Your task to perform on an android device: toggle pop-ups in chrome Image 0: 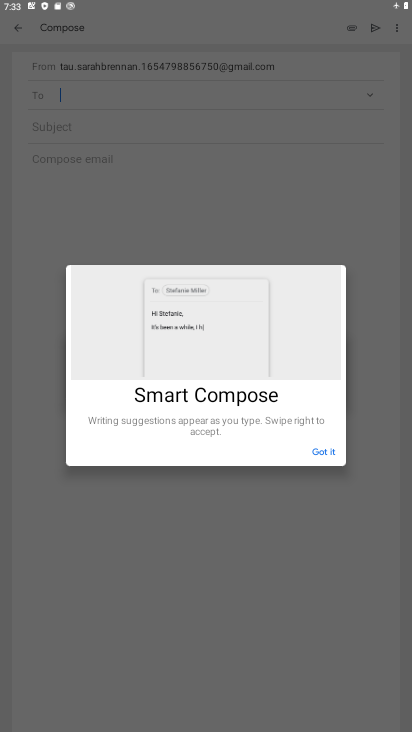
Step 0: press home button
Your task to perform on an android device: toggle pop-ups in chrome Image 1: 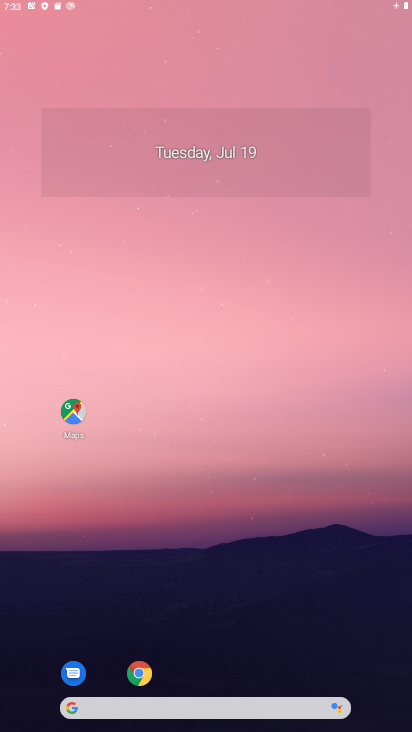
Step 1: drag from (403, 699) to (238, 15)
Your task to perform on an android device: toggle pop-ups in chrome Image 2: 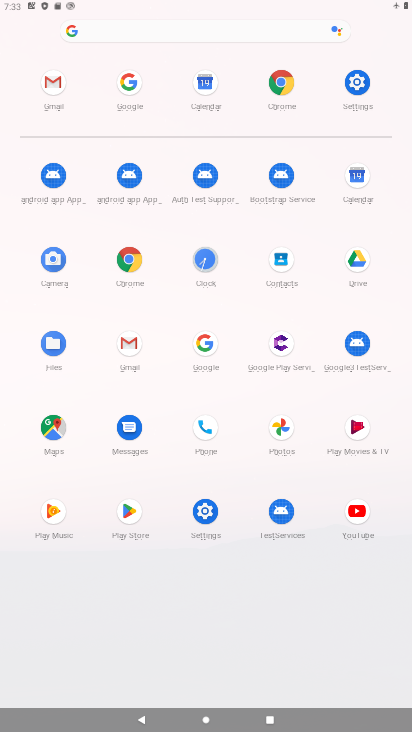
Step 2: click (272, 76)
Your task to perform on an android device: toggle pop-ups in chrome Image 3: 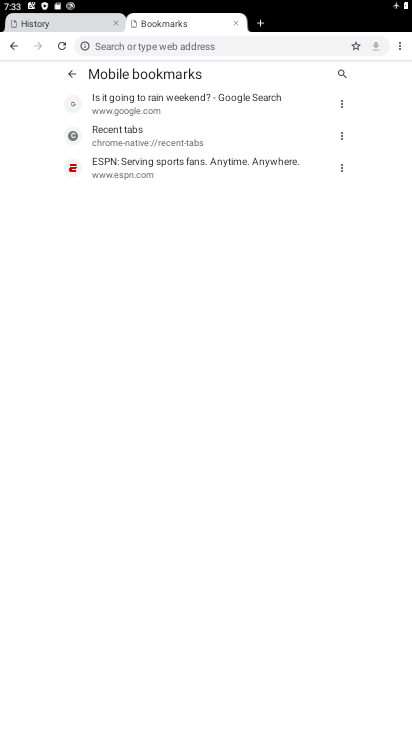
Step 3: click (402, 41)
Your task to perform on an android device: toggle pop-ups in chrome Image 4: 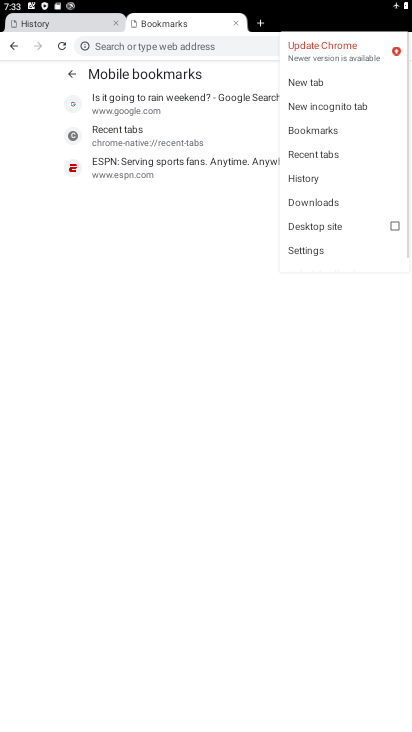
Step 4: click (303, 250)
Your task to perform on an android device: toggle pop-ups in chrome Image 5: 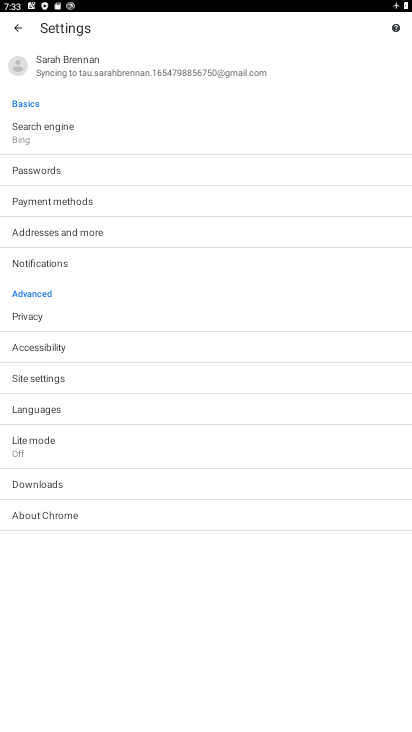
Step 5: click (73, 373)
Your task to perform on an android device: toggle pop-ups in chrome Image 6: 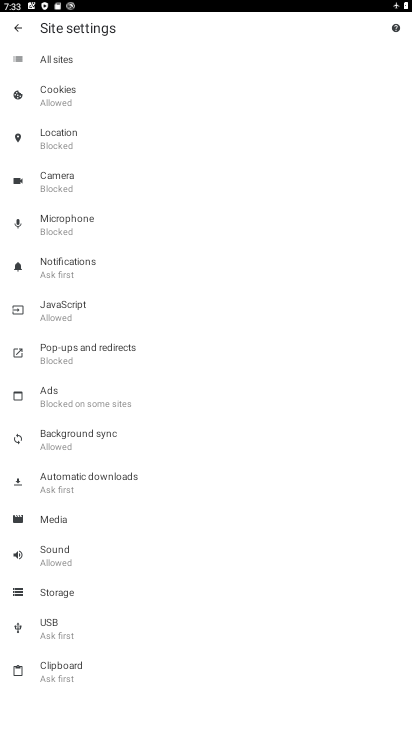
Step 6: click (84, 360)
Your task to perform on an android device: toggle pop-ups in chrome Image 7: 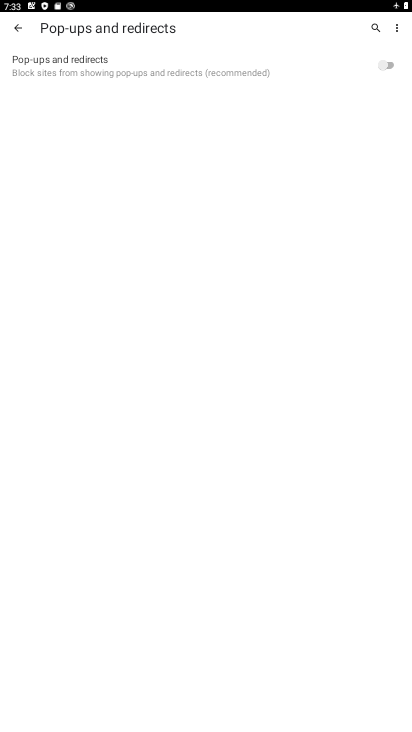
Step 7: click (397, 66)
Your task to perform on an android device: toggle pop-ups in chrome Image 8: 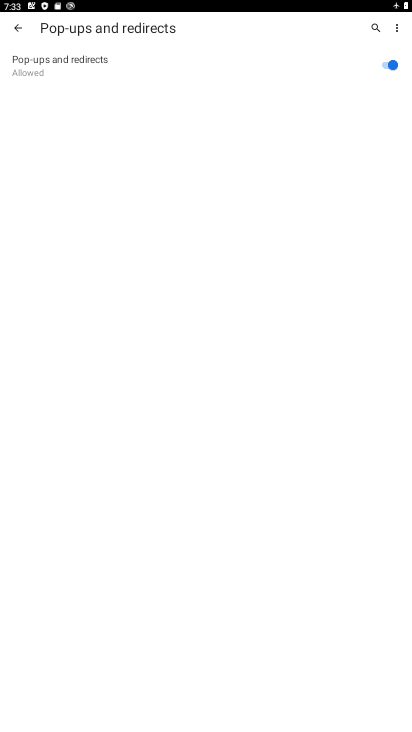
Step 8: task complete